Your task to perform on an android device: Go to Yahoo.com Image 0: 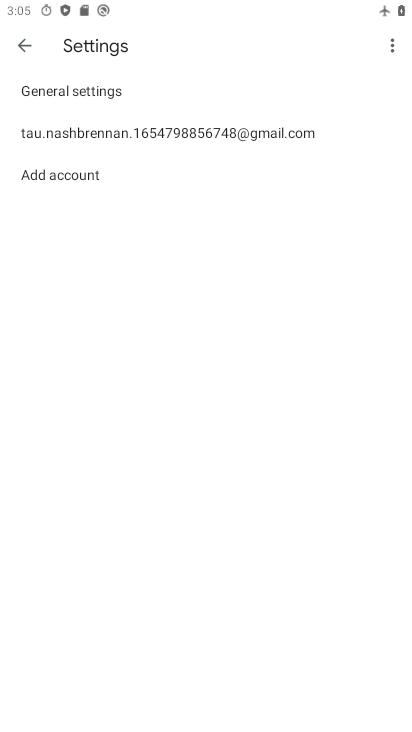
Step 0: press home button
Your task to perform on an android device: Go to Yahoo.com Image 1: 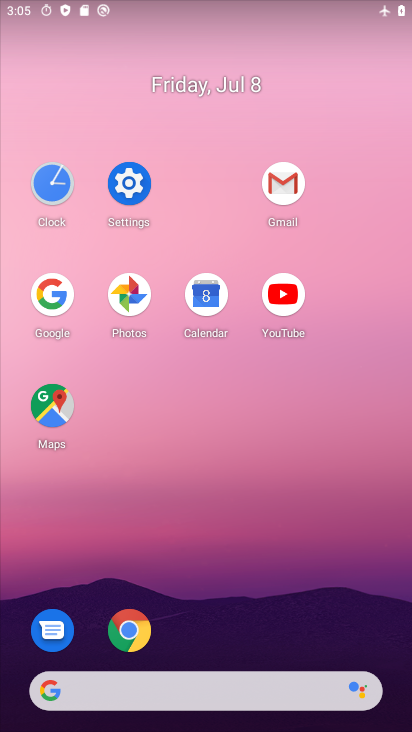
Step 1: click (129, 634)
Your task to perform on an android device: Go to Yahoo.com Image 2: 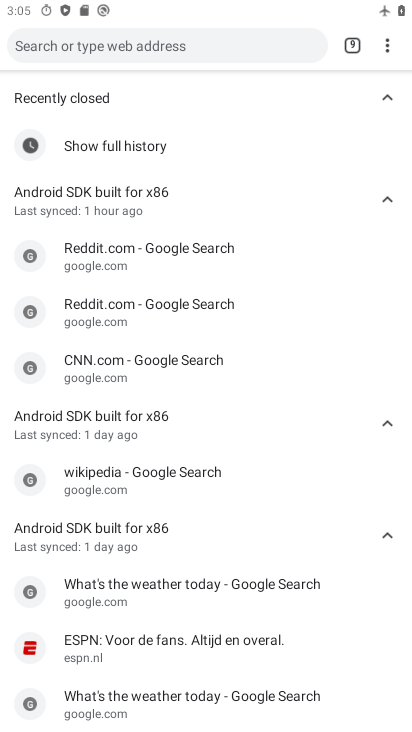
Step 2: click (359, 45)
Your task to perform on an android device: Go to Yahoo.com Image 3: 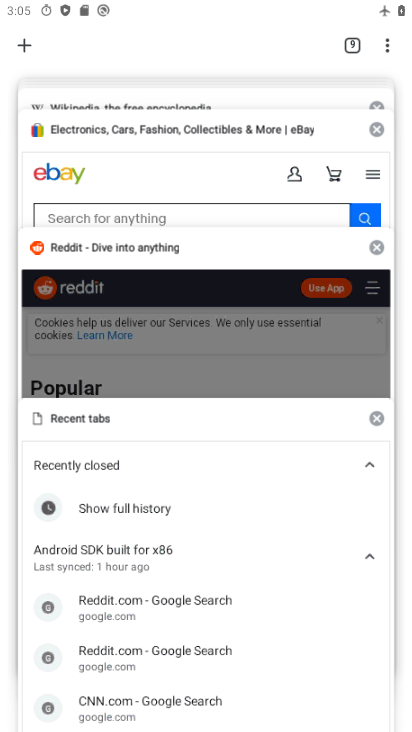
Step 3: task complete